Your task to perform on an android device: choose inbox layout in the gmail app Image 0: 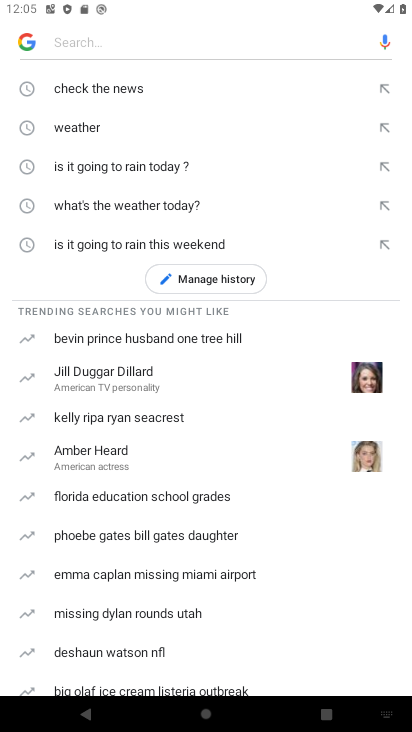
Step 0: press home button
Your task to perform on an android device: choose inbox layout in the gmail app Image 1: 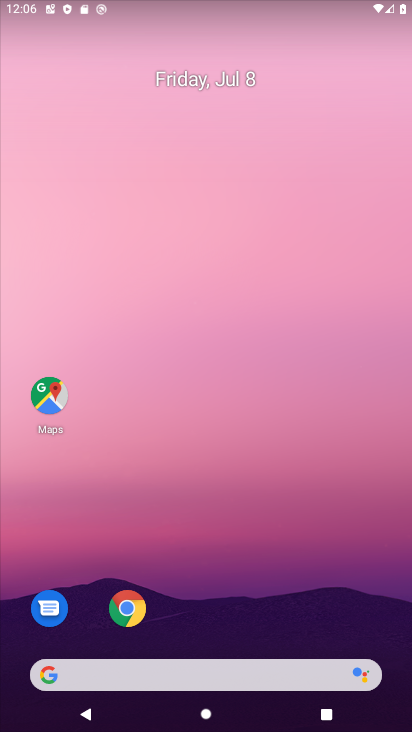
Step 1: drag from (230, 632) to (26, 46)
Your task to perform on an android device: choose inbox layout in the gmail app Image 2: 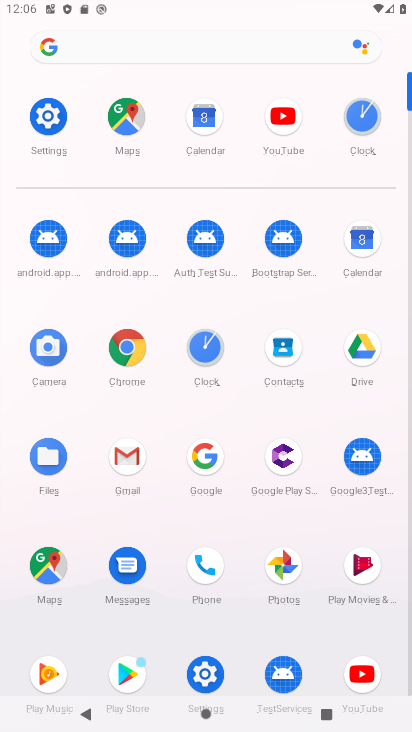
Step 2: click (128, 453)
Your task to perform on an android device: choose inbox layout in the gmail app Image 3: 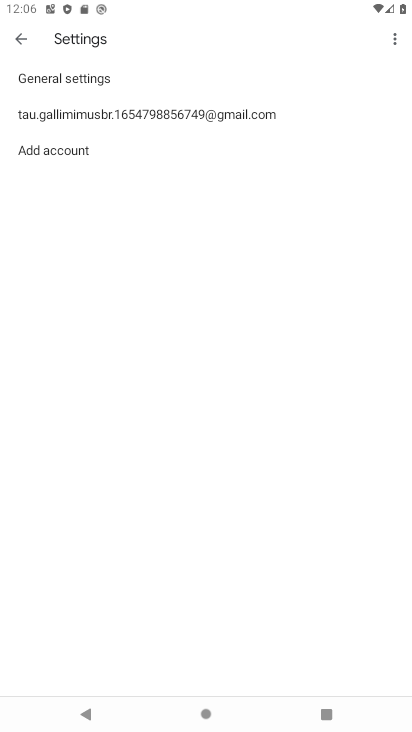
Step 3: click (17, 39)
Your task to perform on an android device: choose inbox layout in the gmail app Image 4: 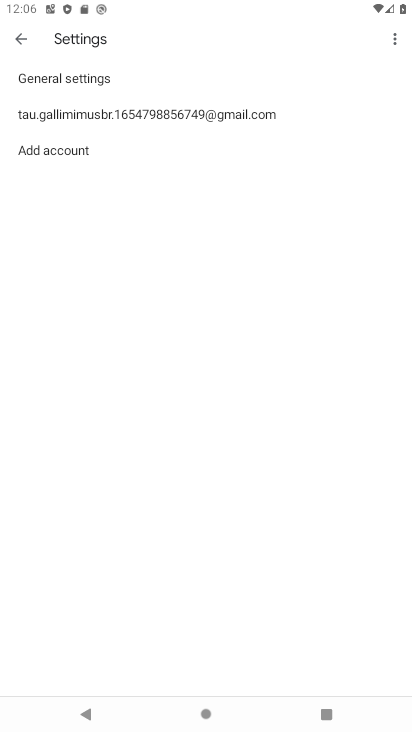
Step 4: click (17, 39)
Your task to perform on an android device: choose inbox layout in the gmail app Image 5: 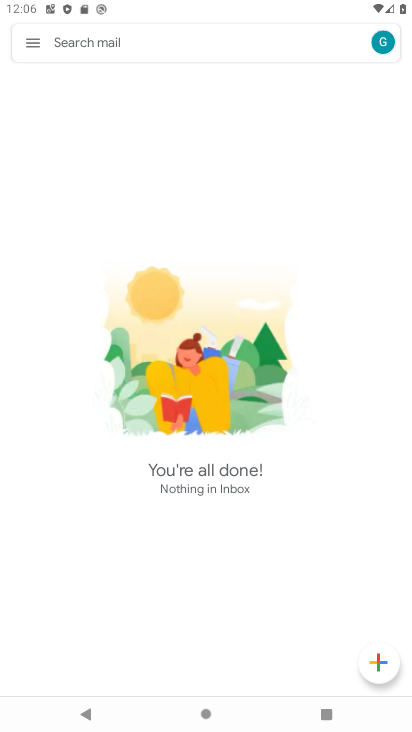
Step 5: click (41, 39)
Your task to perform on an android device: choose inbox layout in the gmail app Image 6: 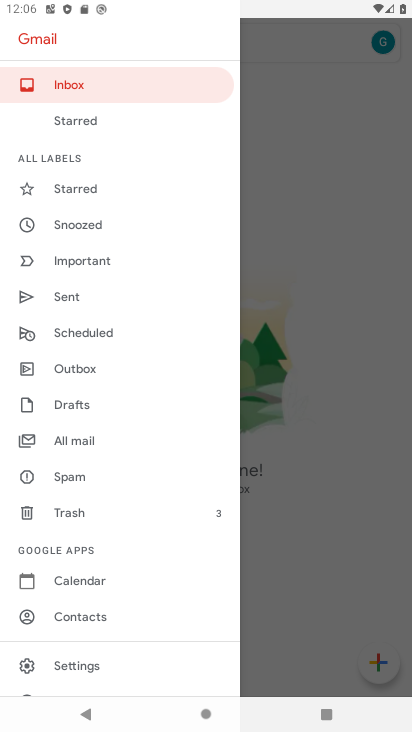
Step 6: click (93, 105)
Your task to perform on an android device: choose inbox layout in the gmail app Image 7: 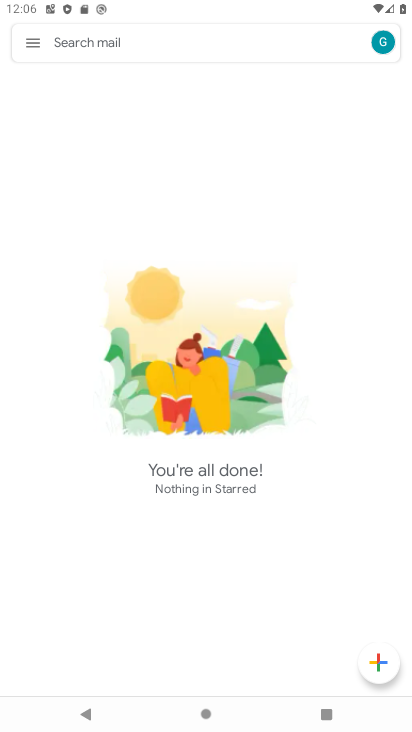
Step 7: task complete